Your task to perform on an android device: When is my next appointment? Image 0: 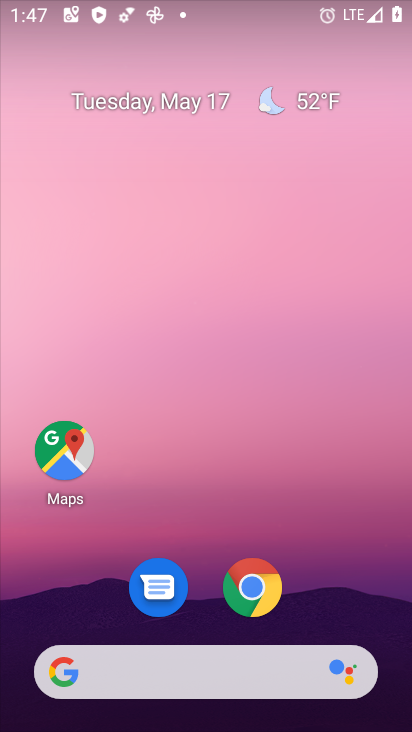
Step 0: drag from (358, 591) to (198, 208)
Your task to perform on an android device: When is my next appointment? Image 1: 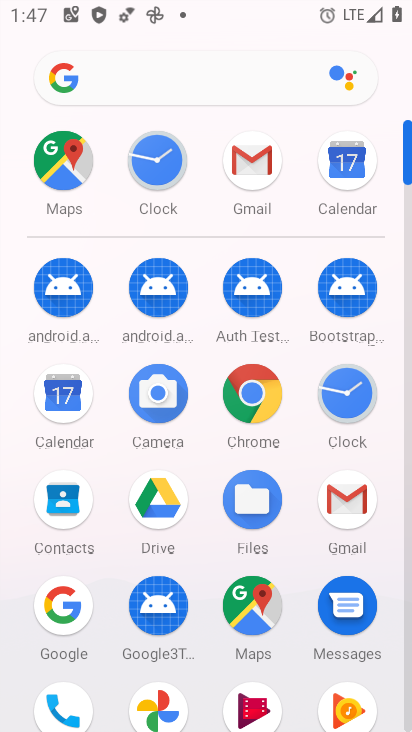
Step 1: click (78, 426)
Your task to perform on an android device: When is my next appointment? Image 2: 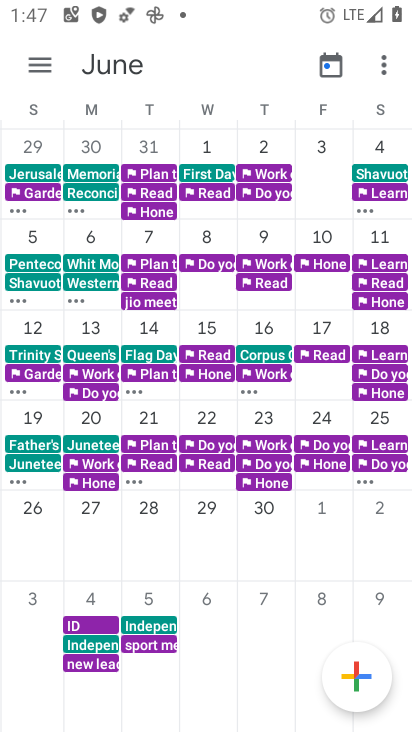
Step 2: task complete